Your task to perform on an android device: check battery use Image 0: 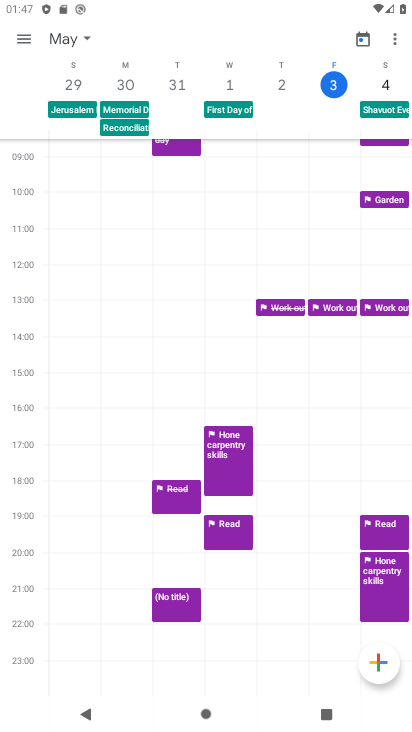
Step 0: press home button
Your task to perform on an android device: check battery use Image 1: 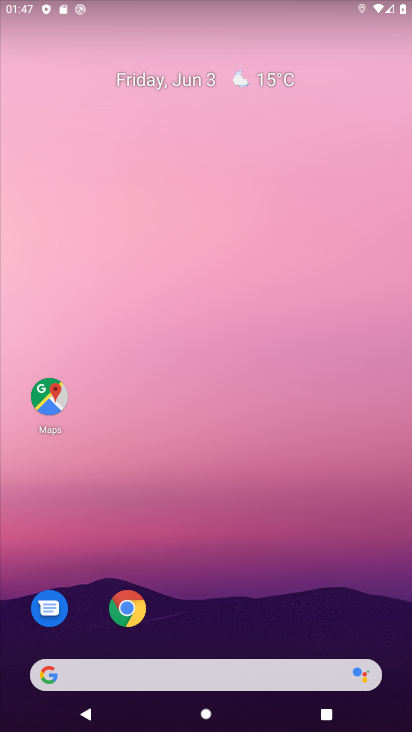
Step 1: drag from (259, 551) to (262, 125)
Your task to perform on an android device: check battery use Image 2: 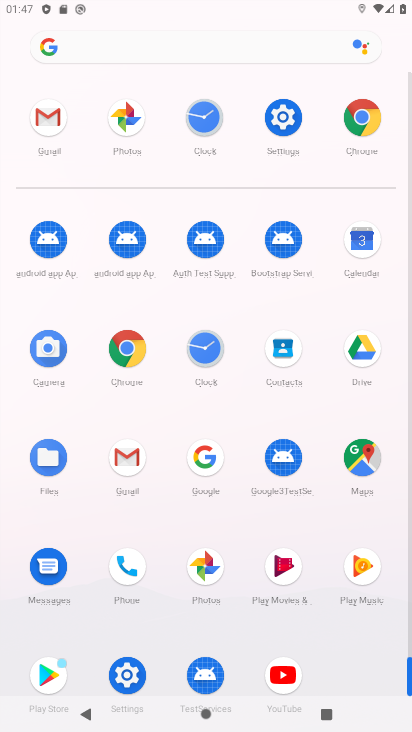
Step 2: click (277, 122)
Your task to perform on an android device: check battery use Image 3: 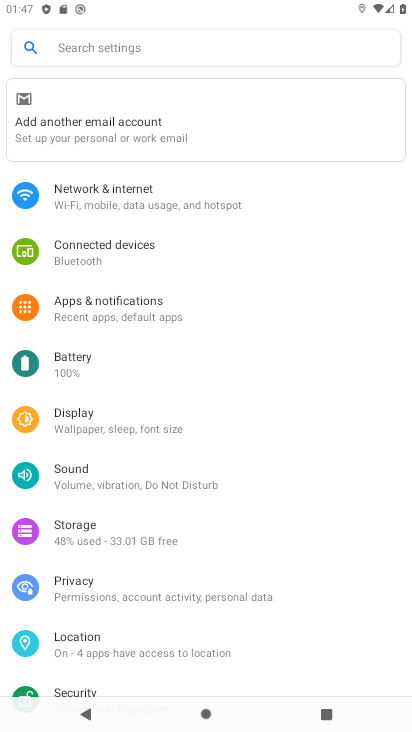
Step 3: click (84, 373)
Your task to perform on an android device: check battery use Image 4: 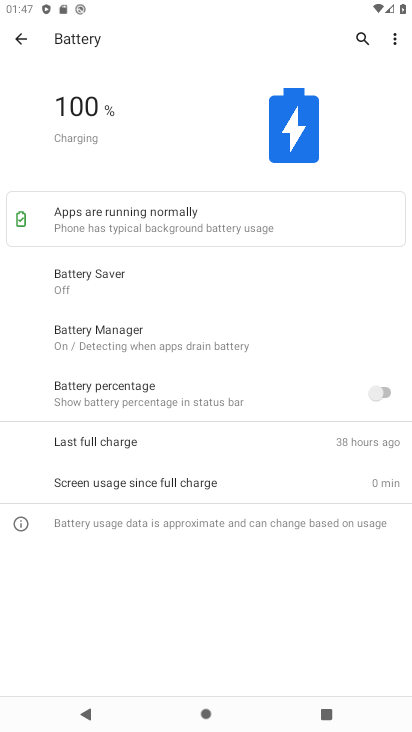
Step 4: task complete